Your task to perform on an android device: Open maps Image 0: 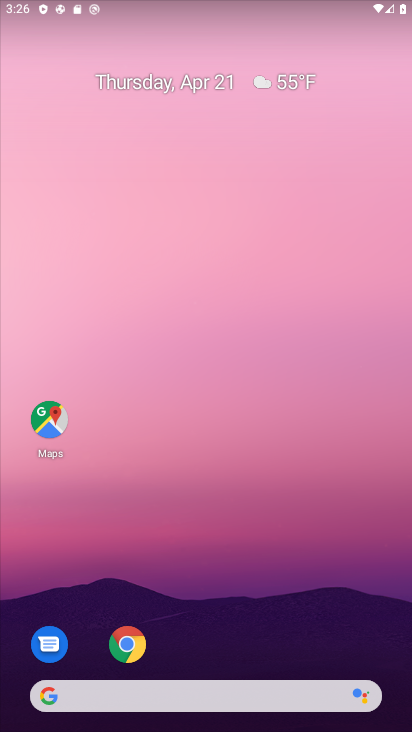
Step 0: drag from (218, 728) to (218, 39)
Your task to perform on an android device: Open maps Image 1: 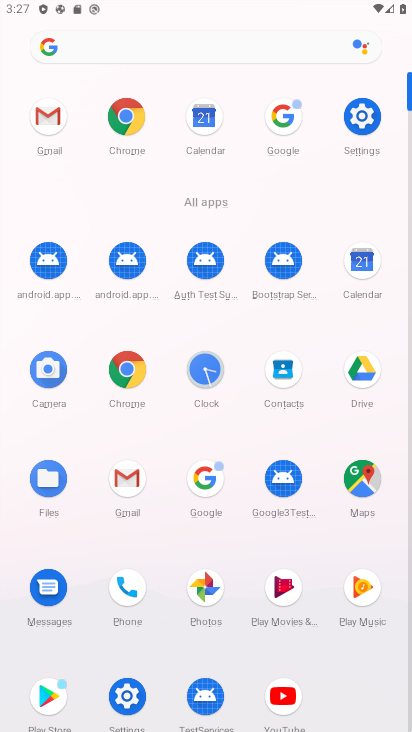
Step 1: click (363, 480)
Your task to perform on an android device: Open maps Image 2: 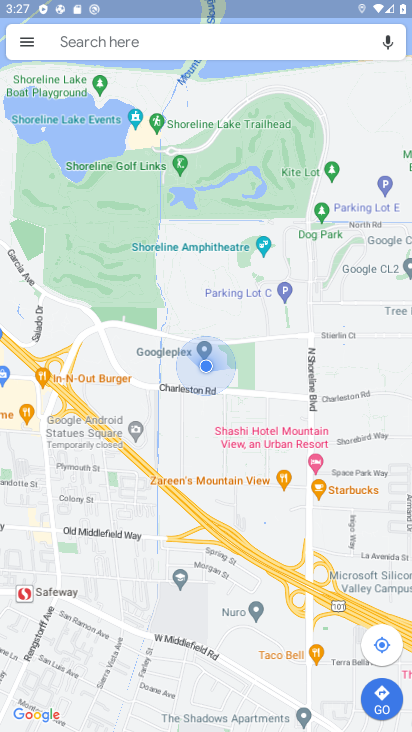
Step 2: task complete